Your task to perform on an android device: Open Wikipedia Image 0: 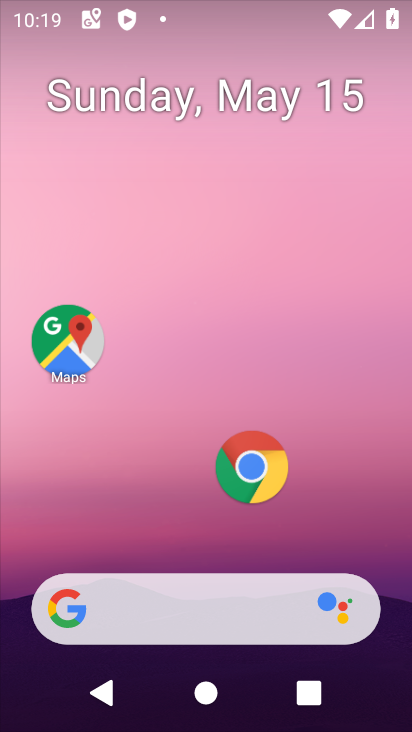
Step 0: click (268, 126)
Your task to perform on an android device: Open Wikipedia Image 1: 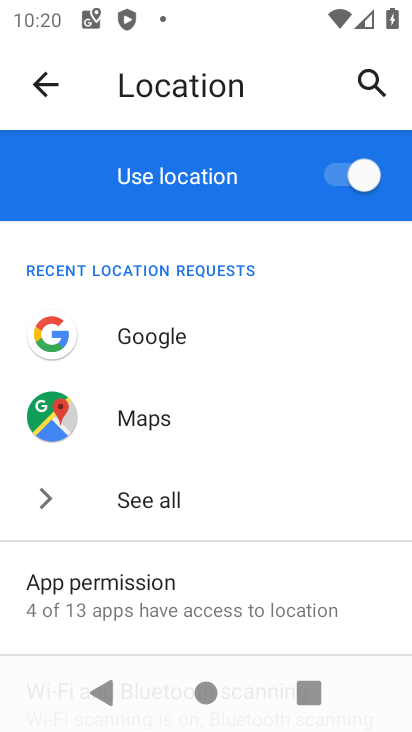
Step 1: drag from (205, 613) to (199, 92)
Your task to perform on an android device: Open Wikipedia Image 2: 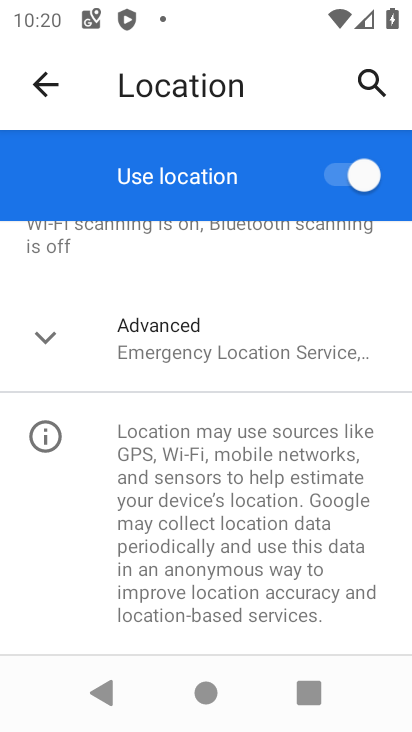
Step 2: click (98, 325)
Your task to perform on an android device: Open Wikipedia Image 3: 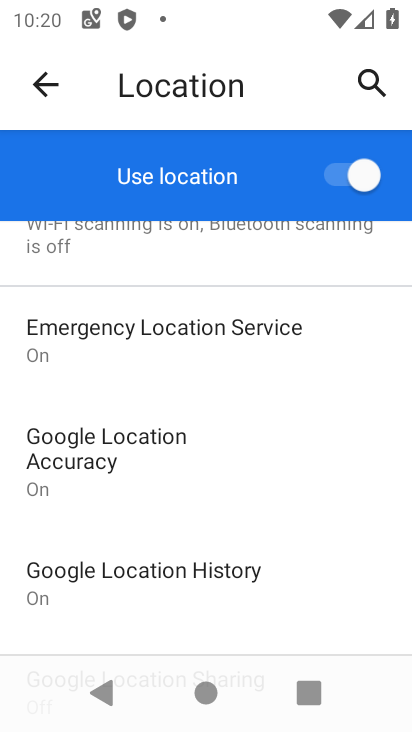
Step 3: press home button
Your task to perform on an android device: Open Wikipedia Image 4: 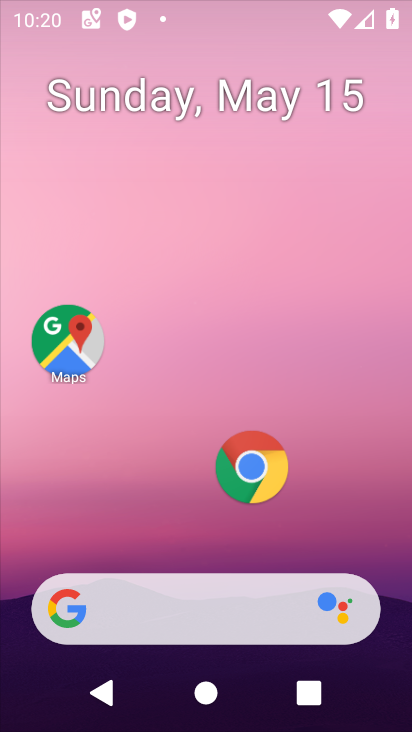
Step 4: drag from (216, 550) to (270, 168)
Your task to perform on an android device: Open Wikipedia Image 5: 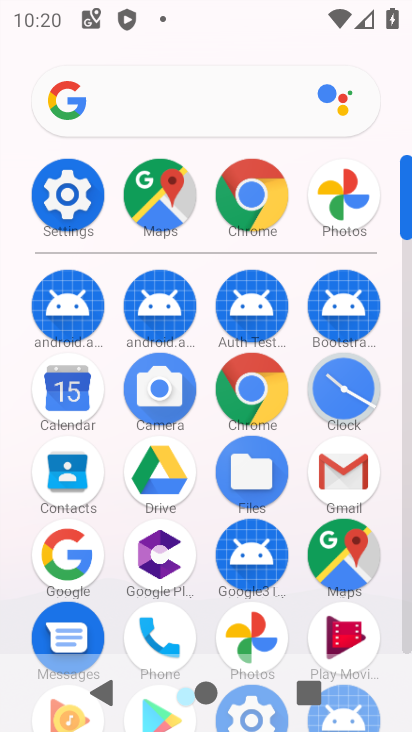
Step 5: click (176, 98)
Your task to perform on an android device: Open Wikipedia Image 6: 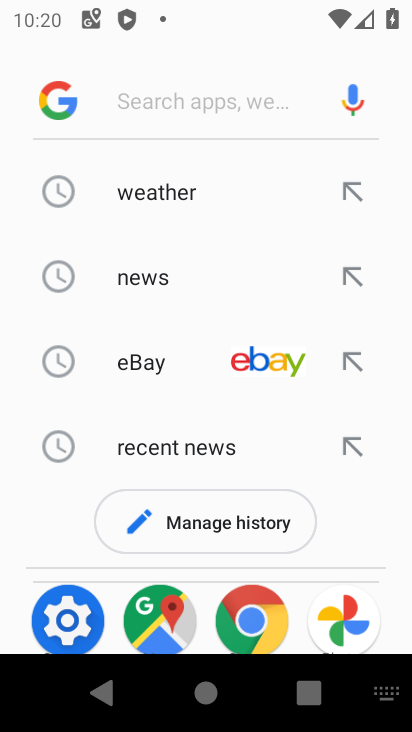
Step 6: type "wikipedia.com"
Your task to perform on an android device: Open Wikipedia Image 7: 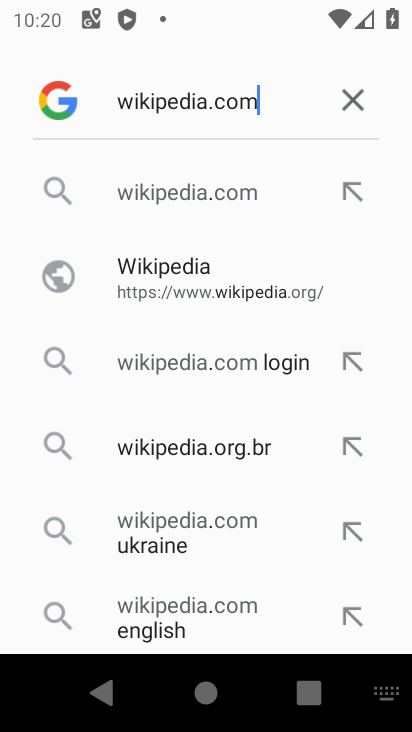
Step 7: click (158, 181)
Your task to perform on an android device: Open Wikipedia Image 8: 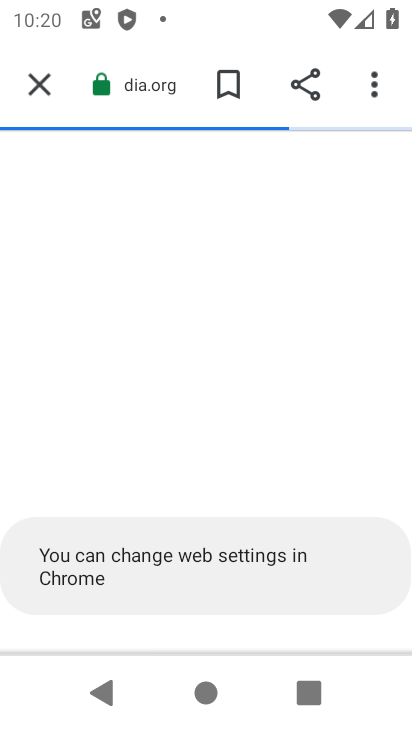
Step 8: drag from (248, 646) to (306, 228)
Your task to perform on an android device: Open Wikipedia Image 9: 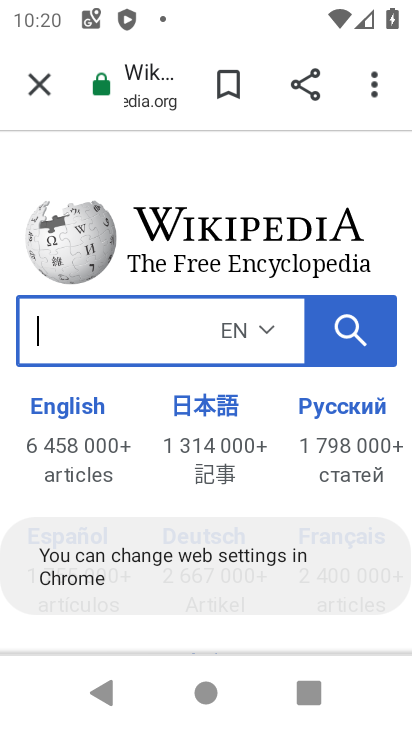
Step 9: click (334, 210)
Your task to perform on an android device: Open Wikipedia Image 10: 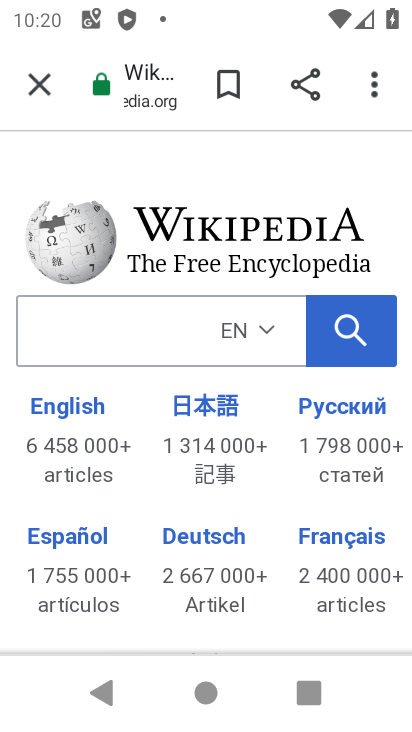
Step 10: task complete